Your task to perform on an android device: turn off translation in the chrome app Image 0: 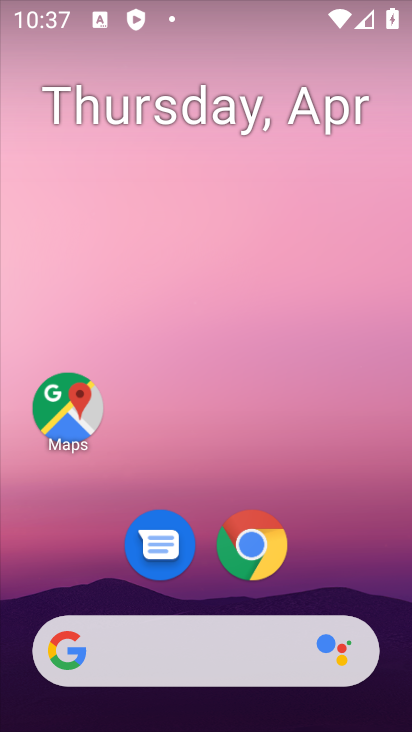
Step 0: click (261, 547)
Your task to perform on an android device: turn off translation in the chrome app Image 1: 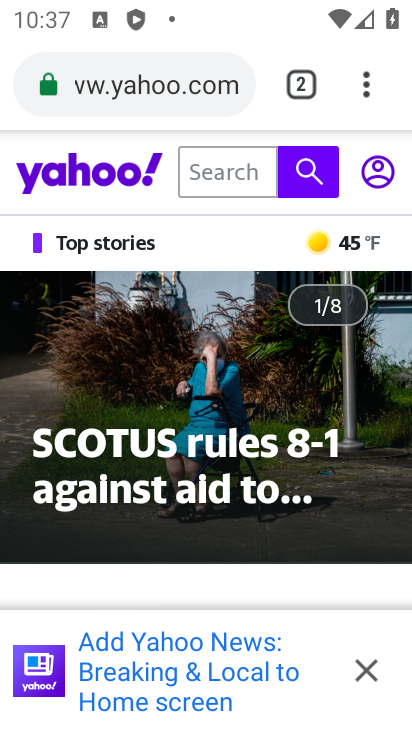
Step 1: click (361, 81)
Your task to perform on an android device: turn off translation in the chrome app Image 2: 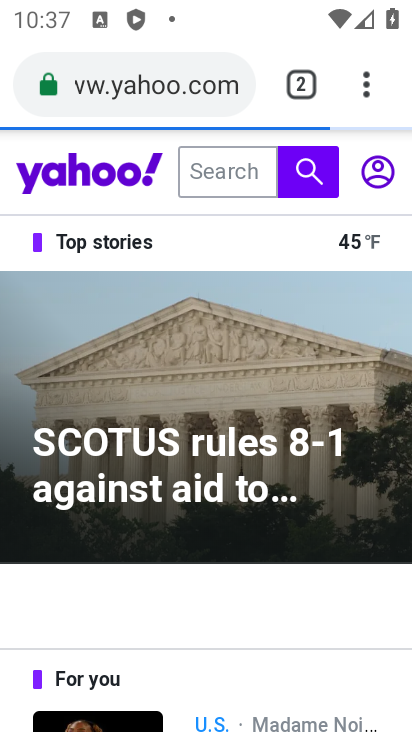
Step 2: click (361, 81)
Your task to perform on an android device: turn off translation in the chrome app Image 3: 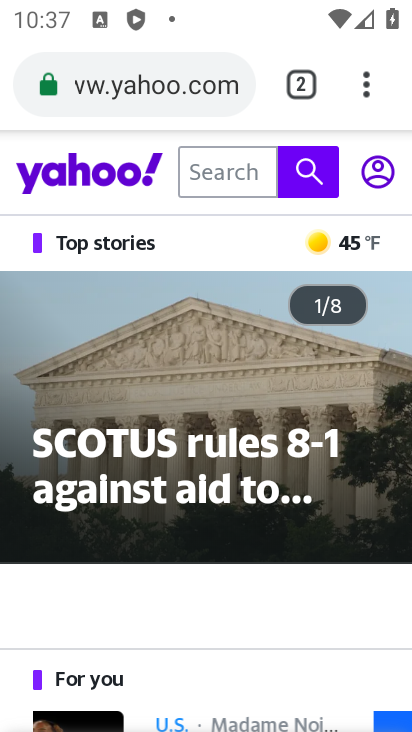
Step 3: click (369, 86)
Your task to perform on an android device: turn off translation in the chrome app Image 4: 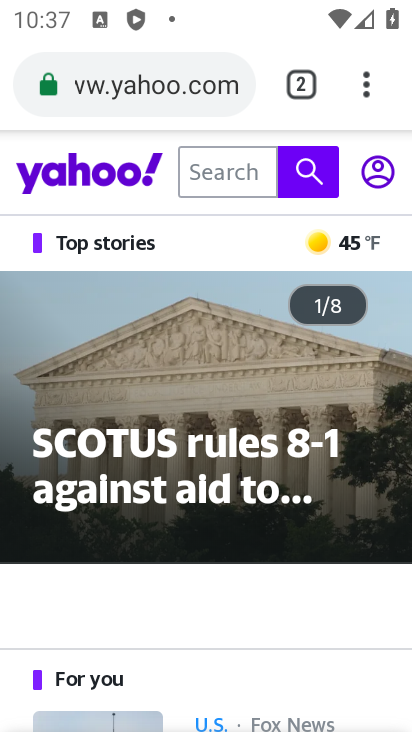
Step 4: click (367, 80)
Your task to perform on an android device: turn off translation in the chrome app Image 5: 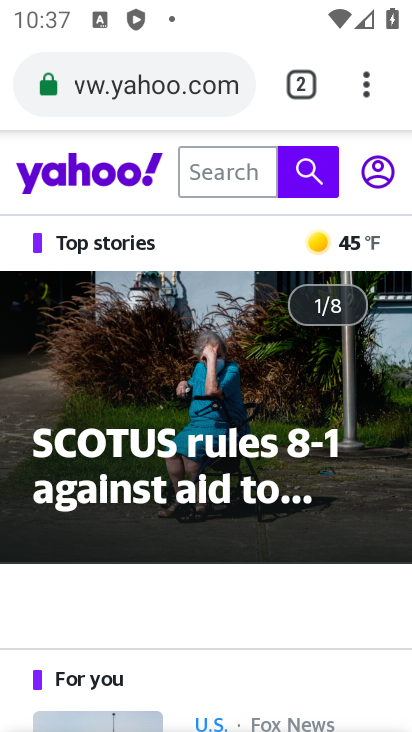
Step 5: click (367, 85)
Your task to perform on an android device: turn off translation in the chrome app Image 6: 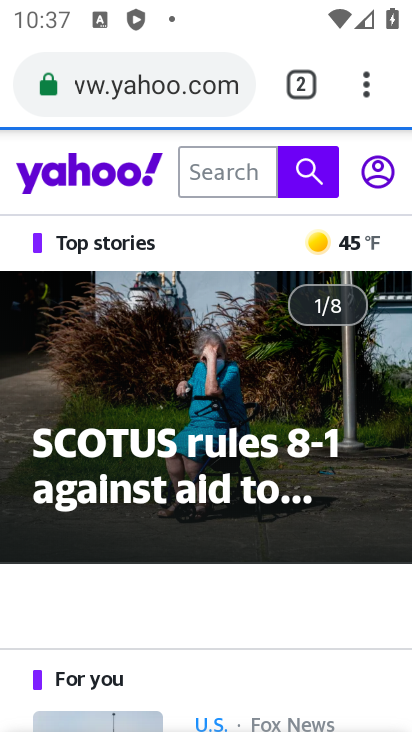
Step 6: click (363, 78)
Your task to perform on an android device: turn off translation in the chrome app Image 7: 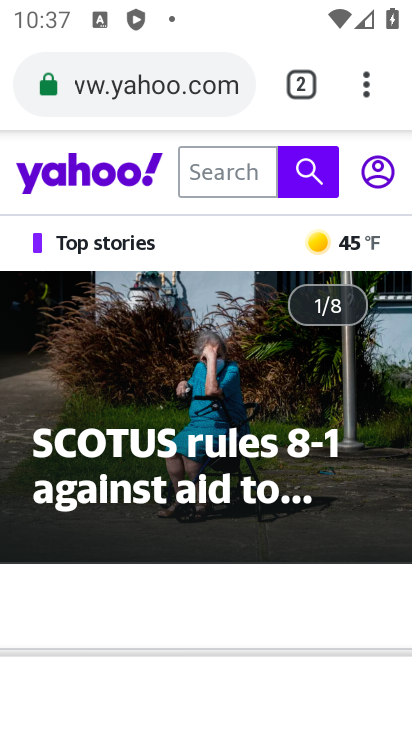
Step 7: click (367, 77)
Your task to perform on an android device: turn off translation in the chrome app Image 8: 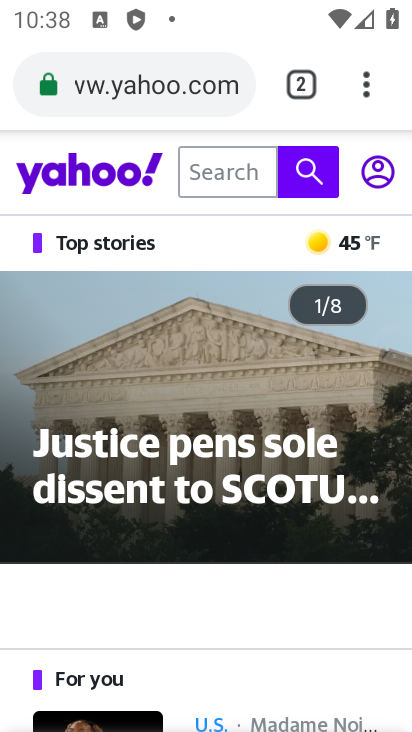
Step 8: click (364, 93)
Your task to perform on an android device: turn off translation in the chrome app Image 9: 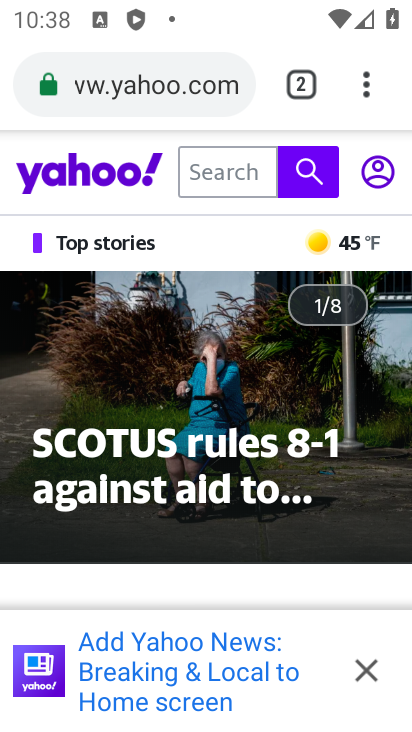
Step 9: click (384, 66)
Your task to perform on an android device: turn off translation in the chrome app Image 10: 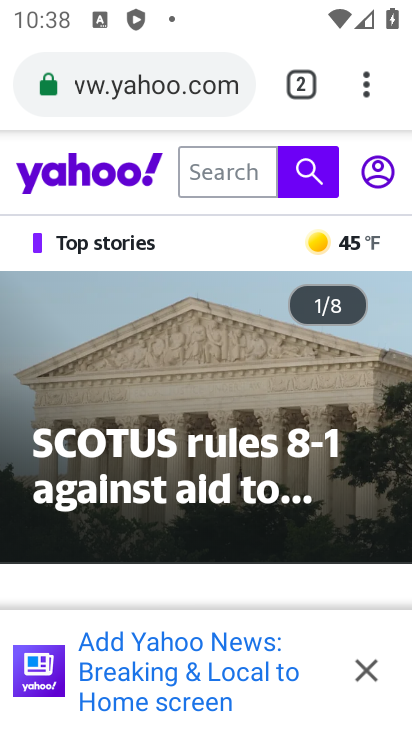
Step 10: click (378, 68)
Your task to perform on an android device: turn off translation in the chrome app Image 11: 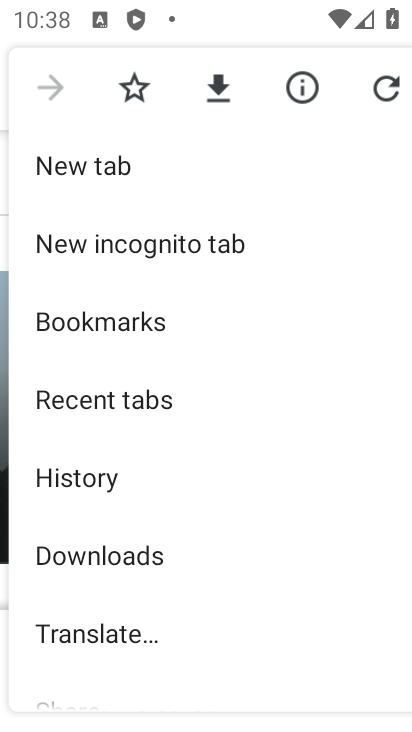
Step 11: drag from (94, 621) to (284, 186)
Your task to perform on an android device: turn off translation in the chrome app Image 12: 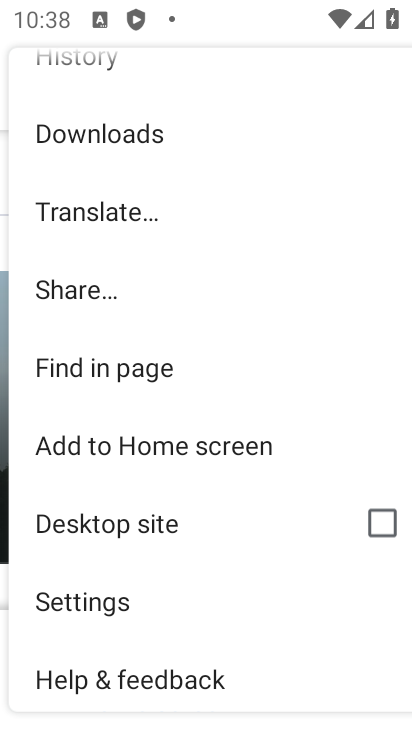
Step 12: click (77, 601)
Your task to perform on an android device: turn off translation in the chrome app Image 13: 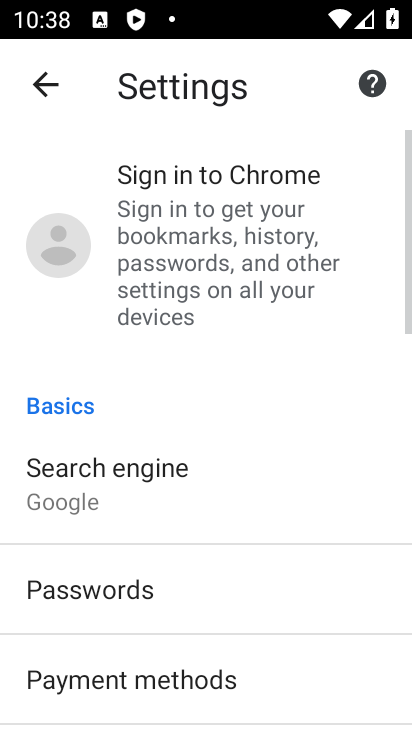
Step 13: drag from (164, 654) to (327, 350)
Your task to perform on an android device: turn off translation in the chrome app Image 14: 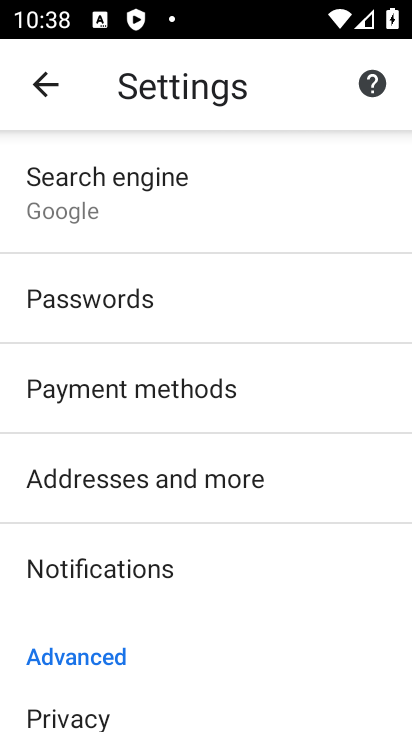
Step 14: drag from (218, 653) to (337, 372)
Your task to perform on an android device: turn off translation in the chrome app Image 15: 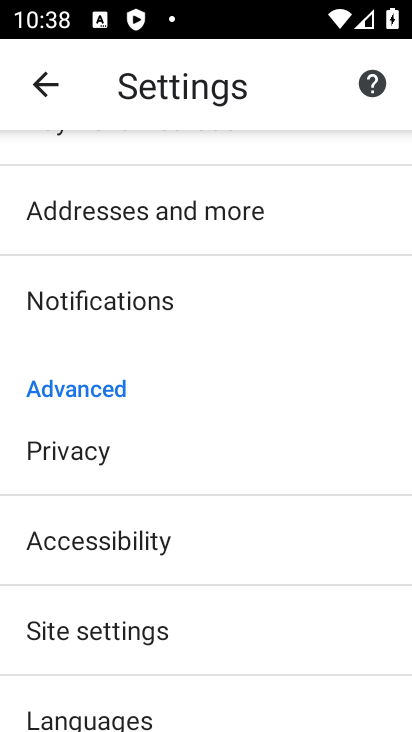
Step 15: click (168, 723)
Your task to perform on an android device: turn off translation in the chrome app Image 16: 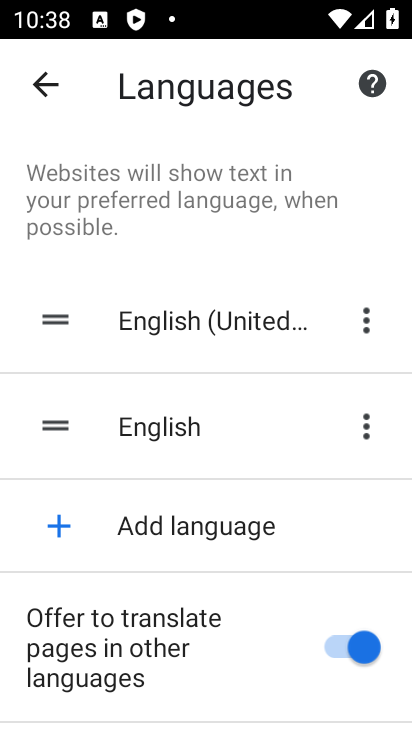
Step 16: click (373, 645)
Your task to perform on an android device: turn off translation in the chrome app Image 17: 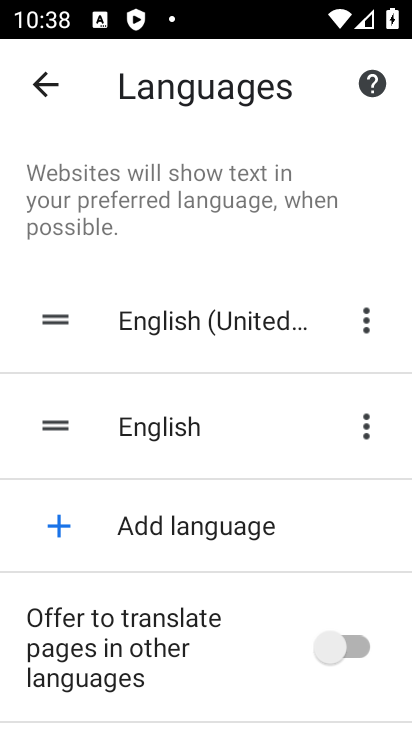
Step 17: task complete